Your task to perform on an android device: Open my contact list Image 0: 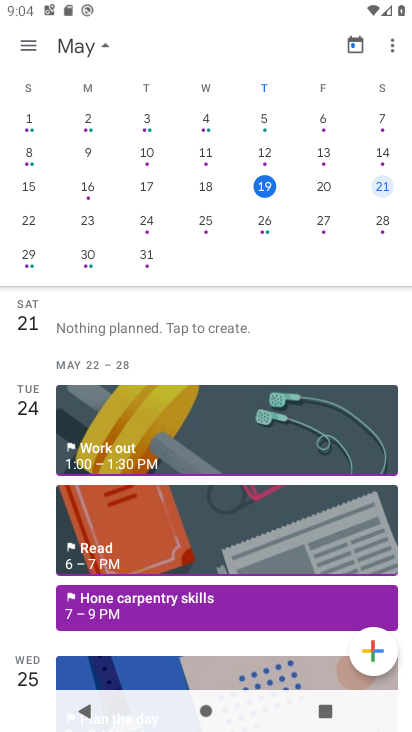
Step 0: press home button
Your task to perform on an android device: Open my contact list Image 1: 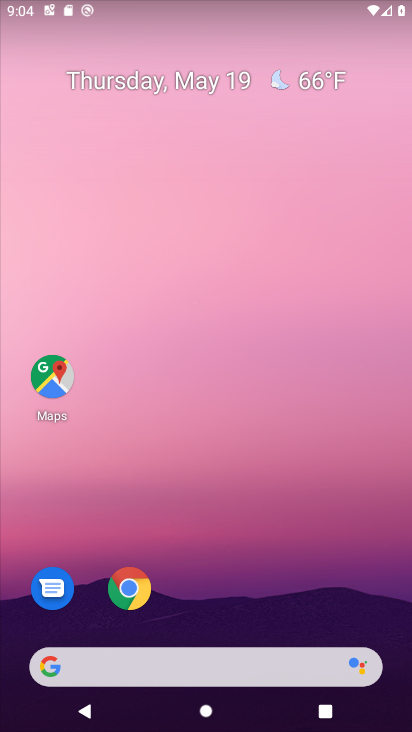
Step 1: drag from (349, 593) to (353, 296)
Your task to perform on an android device: Open my contact list Image 2: 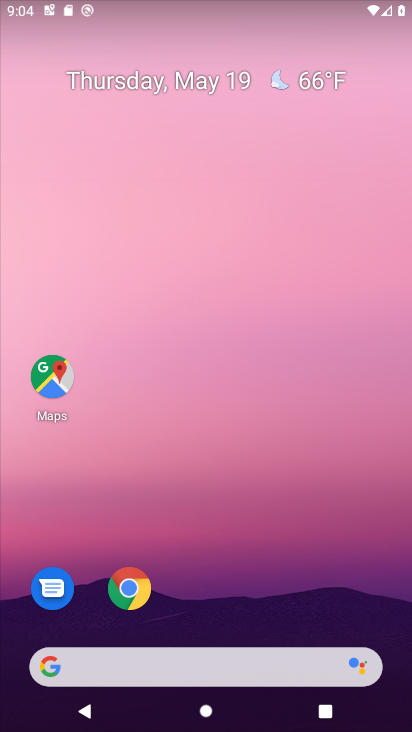
Step 2: drag from (379, 581) to (359, 261)
Your task to perform on an android device: Open my contact list Image 3: 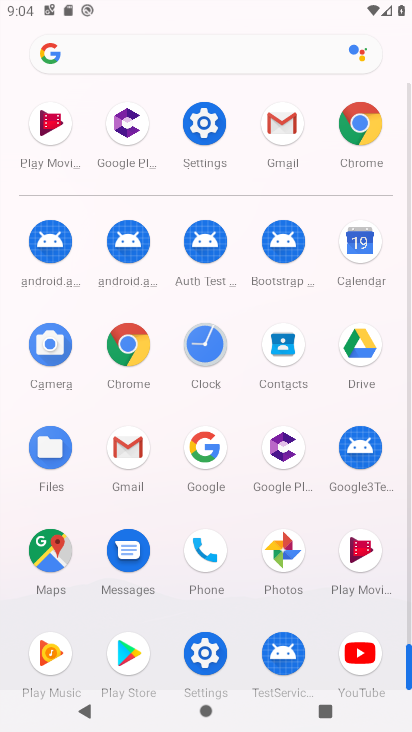
Step 3: click (289, 363)
Your task to perform on an android device: Open my contact list Image 4: 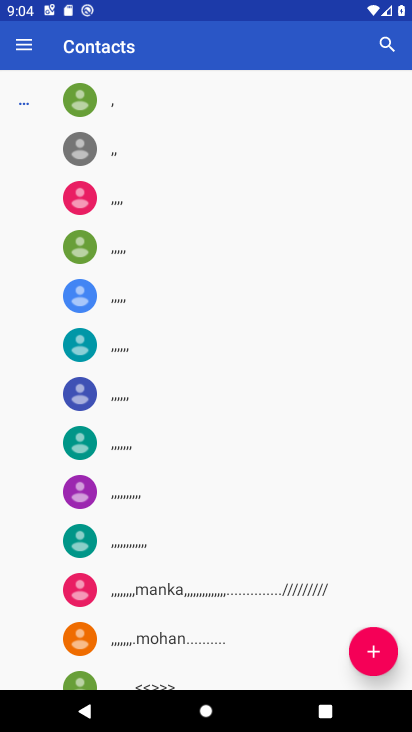
Step 4: drag from (343, 558) to (340, 386)
Your task to perform on an android device: Open my contact list Image 5: 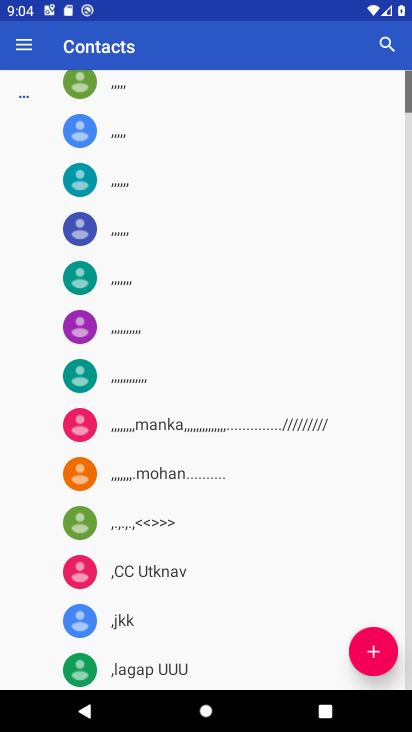
Step 5: drag from (291, 564) to (286, 418)
Your task to perform on an android device: Open my contact list Image 6: 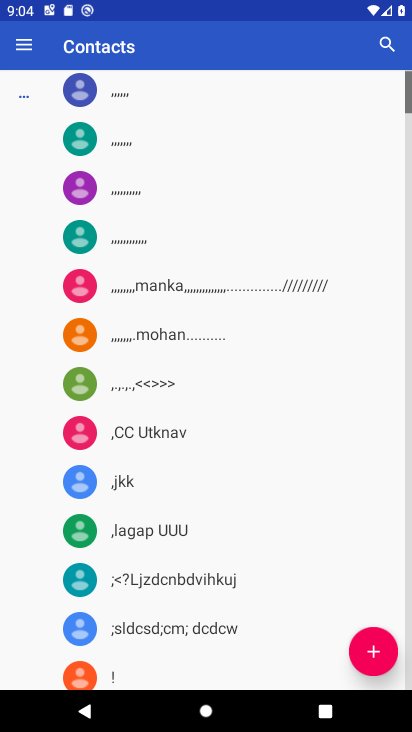
Step 6: drag from (298, 586) to (305, 546)
Your task to perform on an android device: Open my contact list Image 7: 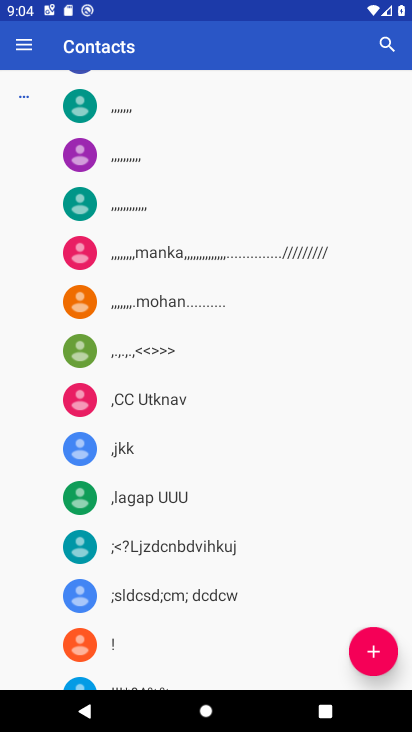
Step 7: click (306, 537)
Your task to perform on an android device: Open my contact list Image 8: 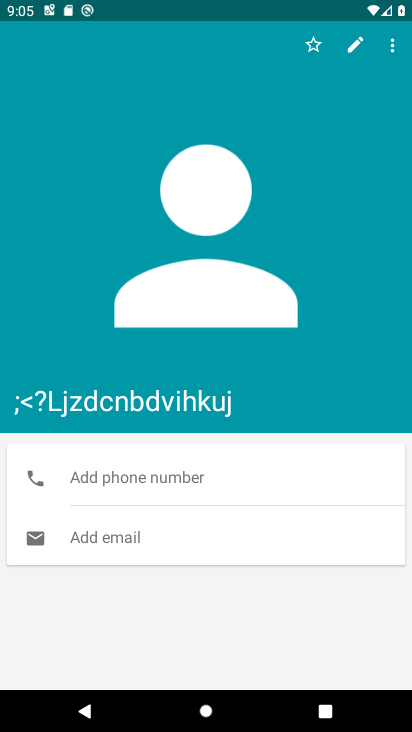
Step 8: task complete